Your task to perform on an android device: Is it going to rain today? Image 0: 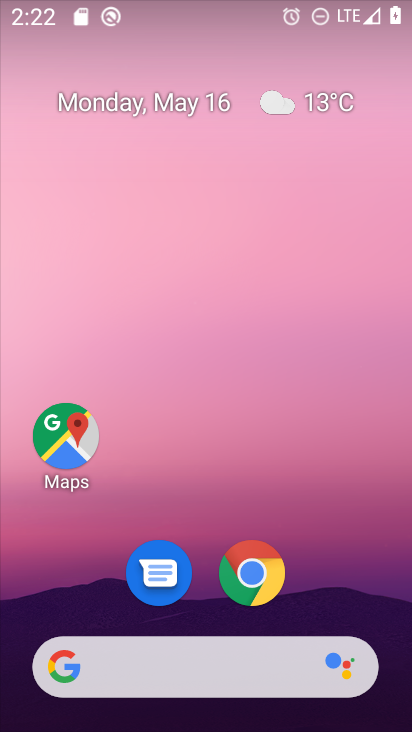
Step 0: drag from (193, 665) to (132, 339)
Your task to perform on an android device: Is it going to rain today? Image 1: 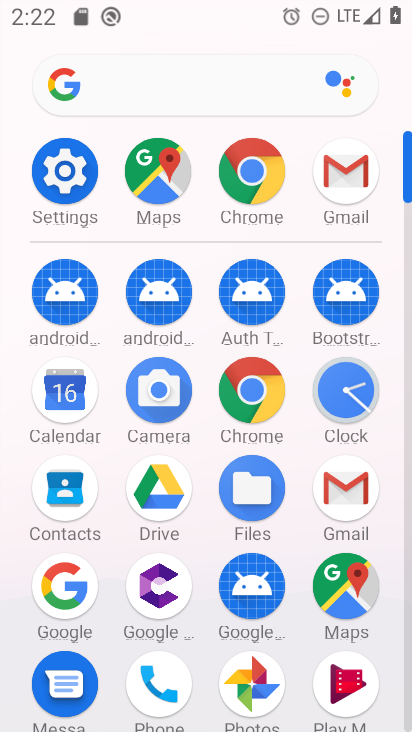
Step 1: click (66, 609)
Your task to perform on an android device: Is it going to rain today? Image 2: 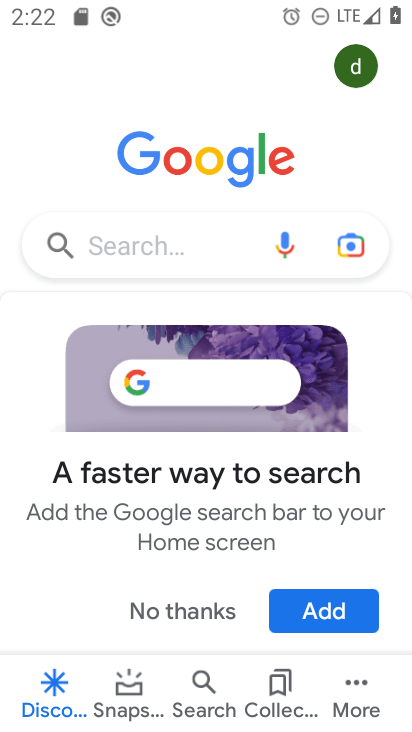
Step 2: click (230, 616)
Your task to perform on an android device: Is it going to rain today? Image 3: 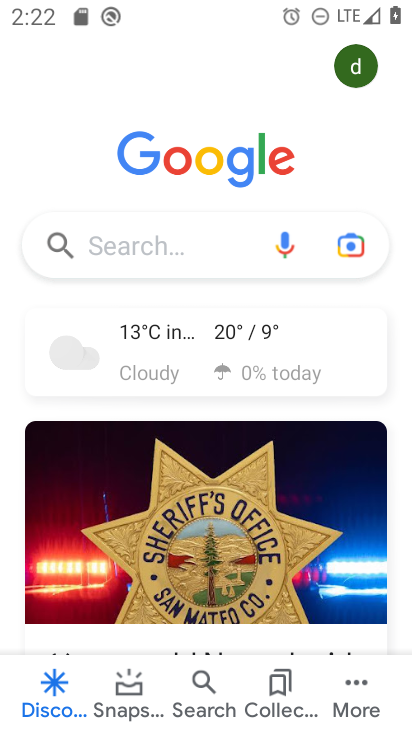
Step 3: click (137, 367)
Your task to perform on an android device: Is it going to rain today? Image 4: 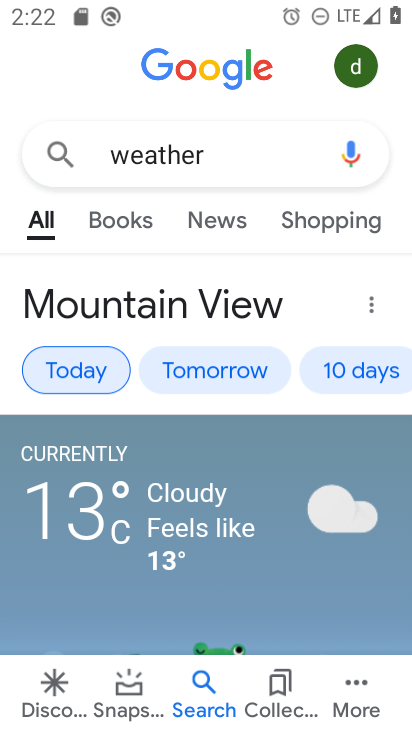
Step 4: task complete